Your task to perform on an android device: Open Chrome and go to the settings page Image 0: 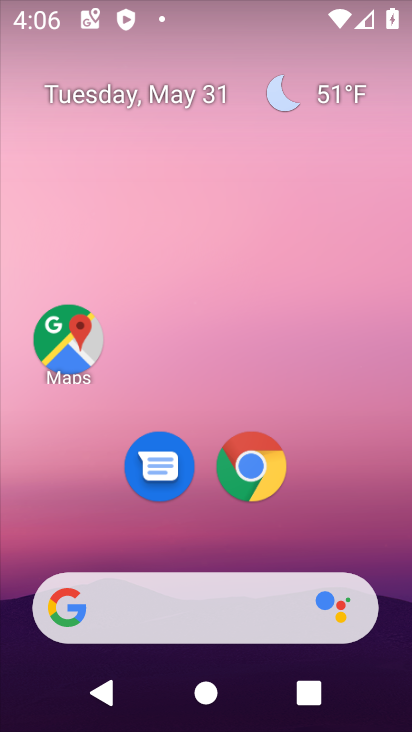
Step 0: press home button
Your task to perform on an android device: Open Chrome and go to the settings page Image 1: 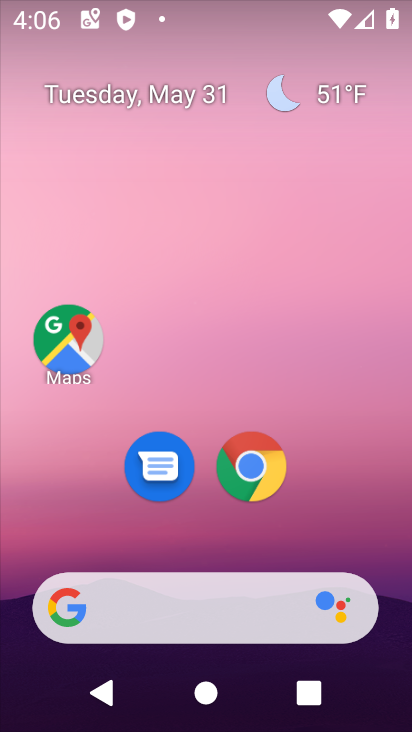
Step 1: click (247, 457)
Your task to perform on an android device: Open Chrome and go to the settings page Image 2: 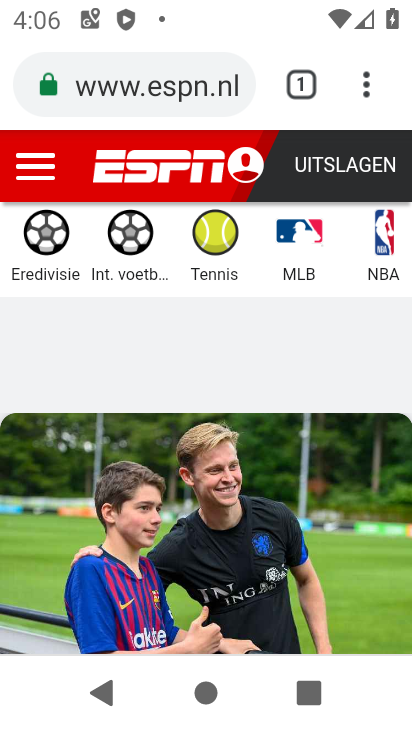
Step 2: click (366, 76)
Your task to perform on an android device: Open Chrome and go to the settings page Image 3: 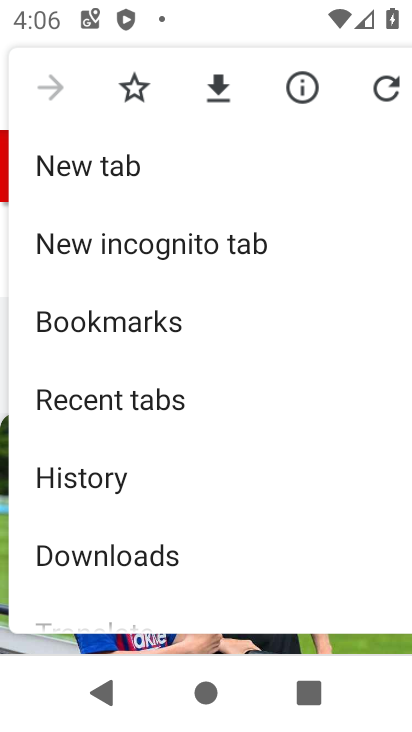
Step 3: drag from (212, 566) to (273, 78)
Your task to perform on an android device: Open Chrome and go to the settings page Image 4: 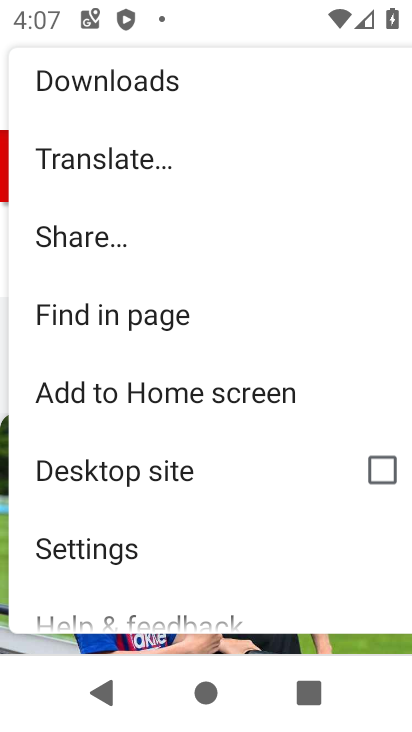
Step 4: click (150, 548)
Your task to perform on an android device: Open Chrome and go to the settings page Image 5: 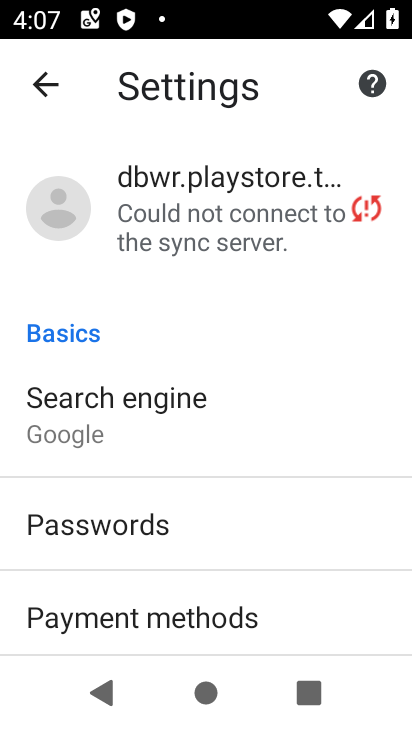
Step 5: task complete